Your task to perform on an android device: star an email in the gmail app Image 0: 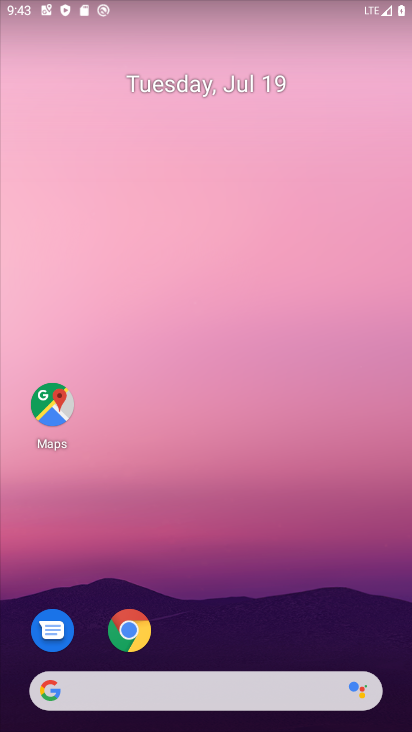
Step 0: drag from (206, 635) to (171, 109)
Your task to perform on an android device: star an email in the gmail app Image 1: 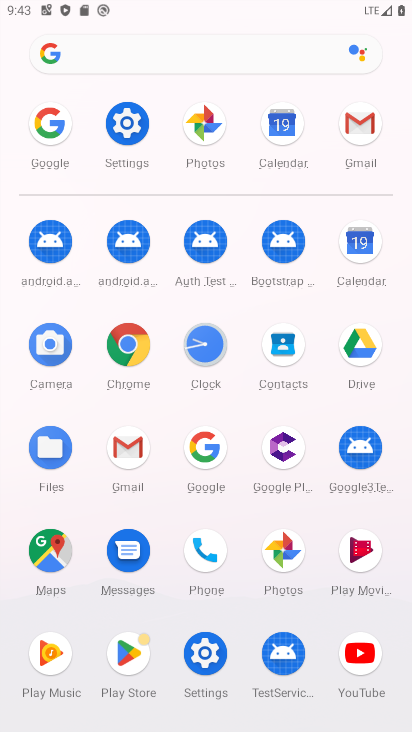
Step 1: click (124, 449)
Your task to perform on an android device: star an email in the gmail app Image 2: 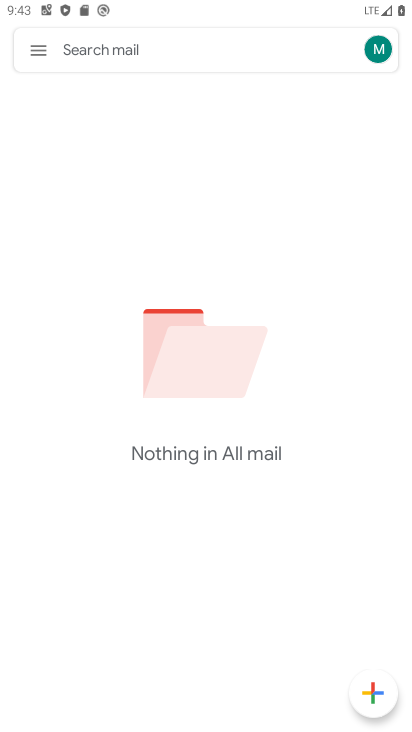
Step 2: task complete